Your task to perform on an android device: What's on my calendar today? Image 0: 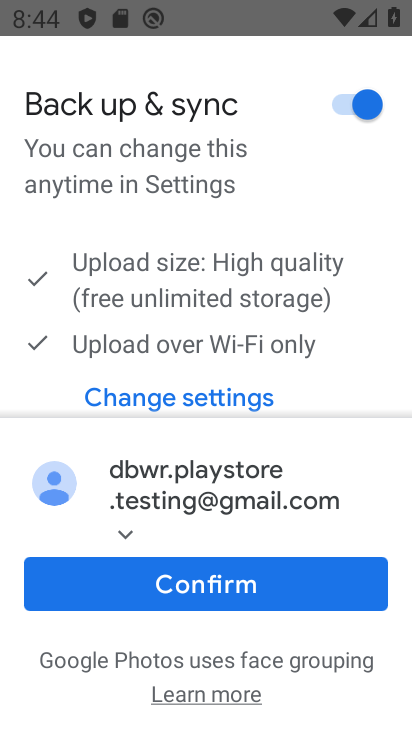
Step 0: click (219, 566)
Your task to perform on an android device: What's on my calendar today? Image 1: 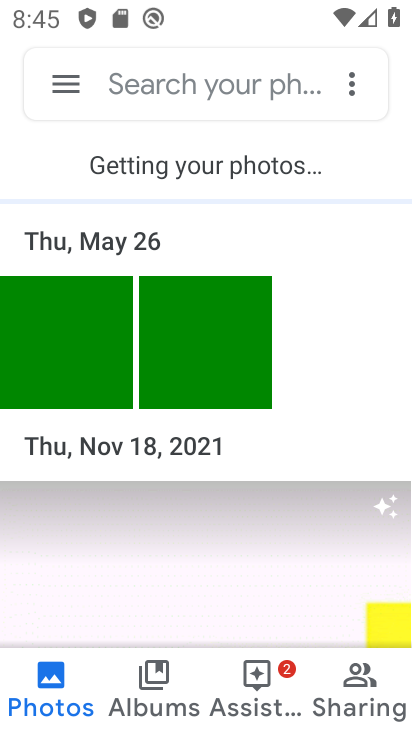
Step 1: task complete